Your task to perform on an android device: turn on notifications settings in the gmail app Image 0: 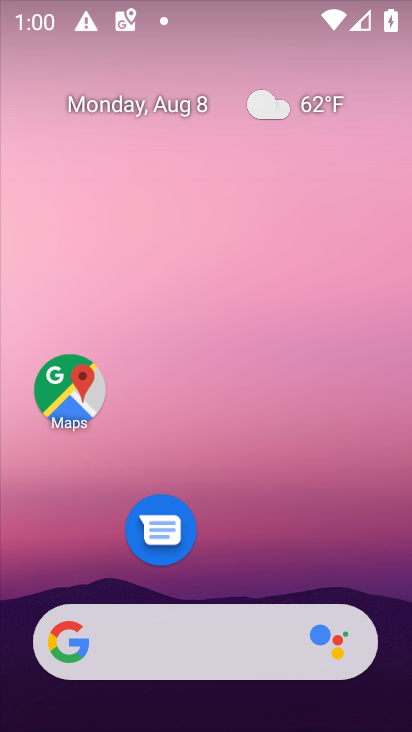
Step 0: drag from (239, 577) to (206, 12)
Your task to perform on an android device: turn on notifications settings in the gmail app Image 1: 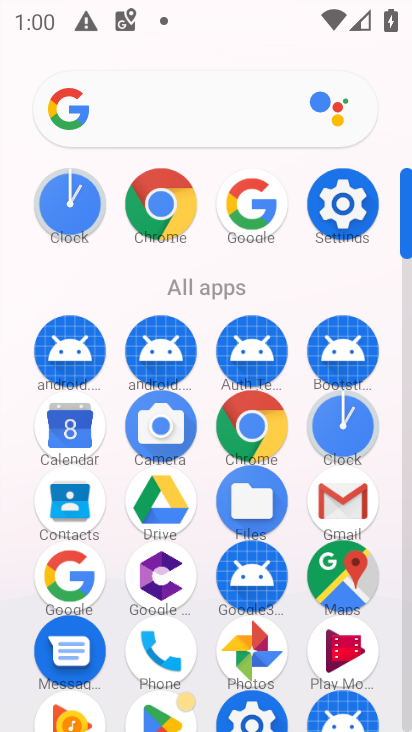
Step 1: click (342, 494)
Your task to perform on an android device: turn on notifications settings in the gmail app Image 2: 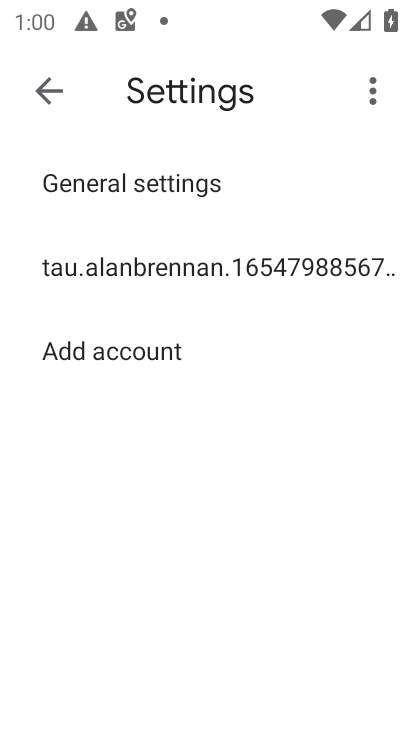
Step 2: click (182, 266)
Your task to perform on an android device: turn on notifications settings in the gmail app Image 3: 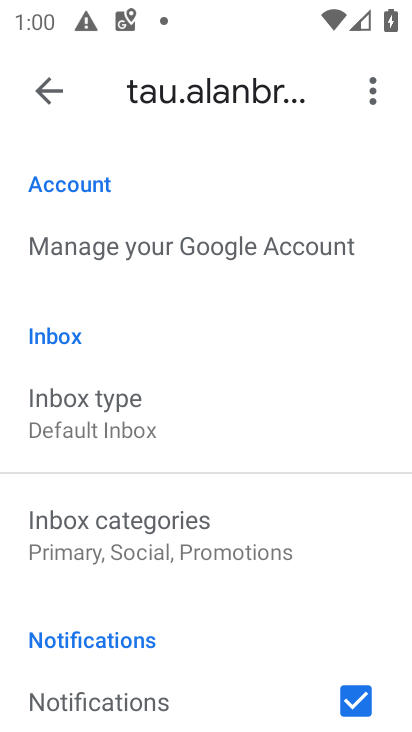
Step 3: task complete